Your task to perform on an android device: Open Youtube and go to the subscriptions tab Image 0: 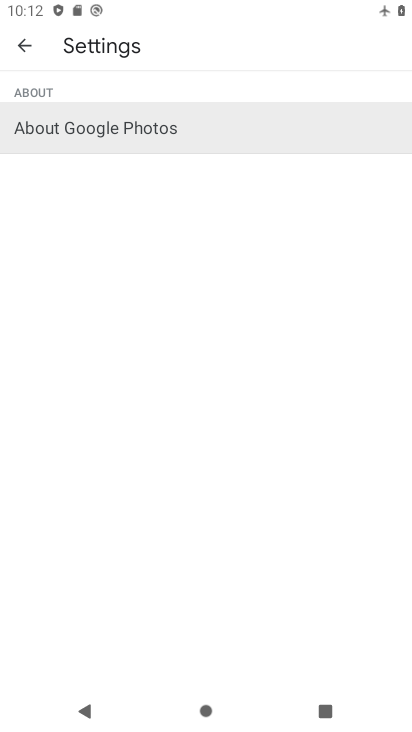
Step 0: press home button
Your task to perform on an android device: Open Youtube and go to the subscriptions tab Image 1: 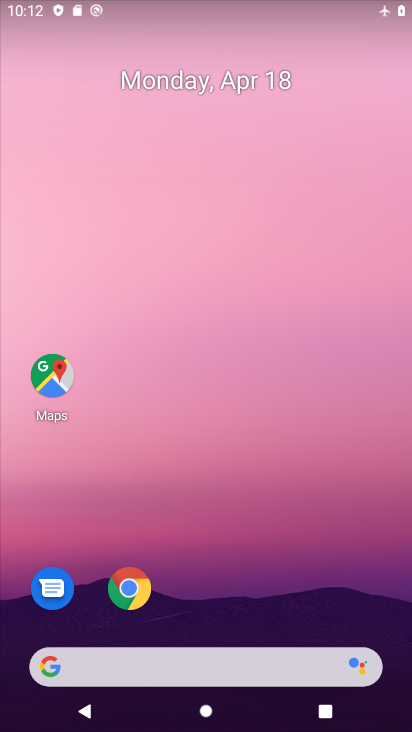
Step 1: drag from (229, 606) to (235, 145)
Your task to perform on an android device: Open Youtube and go to the subscriptions tab Image 2: 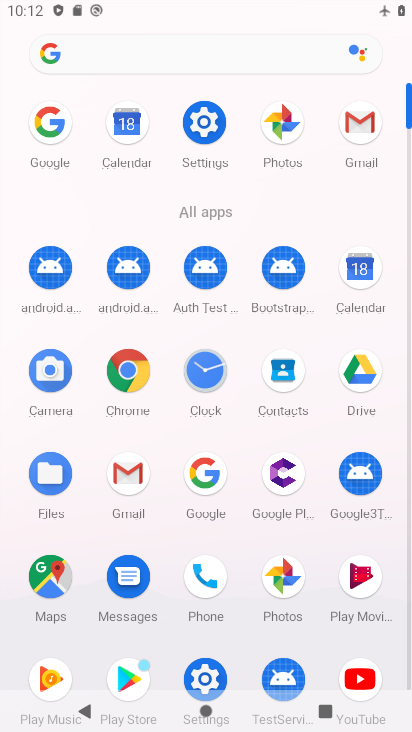
Step 2: click (356, 669)
Your task to perform on an android device: Open Youtube and go to the subscriptions tab Image 3: 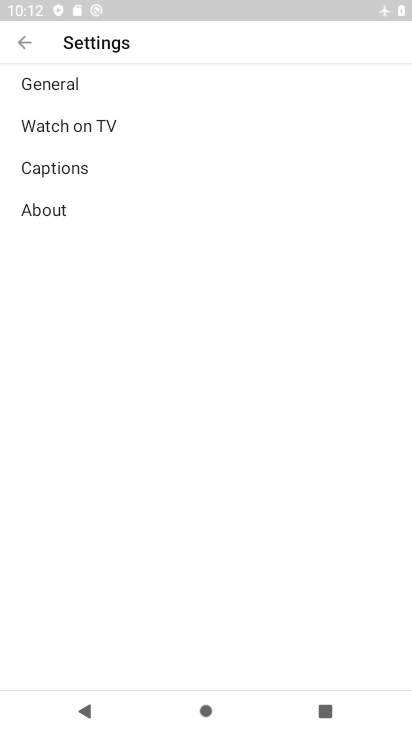
Step 3: press back button
Your task to perform on an android device: Open Youtube and go to the subscriptions tab Image 4: 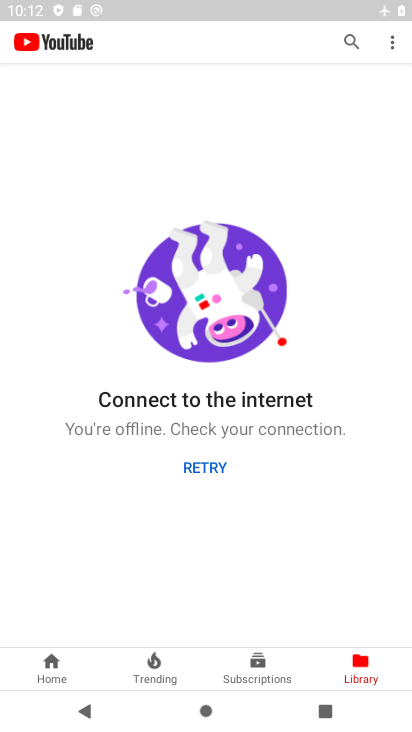
Step 4: click (246, 664)
Your task to perform on an android device: Open Youtube and go to the subscriptions tab Image 5: 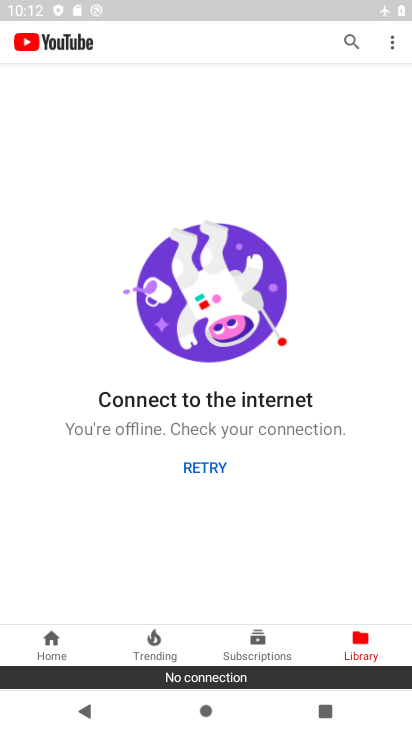
Step 5: click (279, 639)
Your task to perform on an android device: Open Youtube and go to the subscriptions tab Image 6: 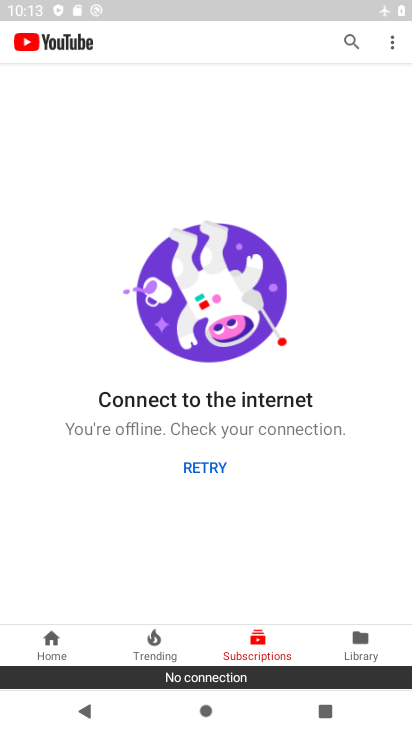
Step 6: task complete